Your task to perform on an android device: Open Google Maps and go to "Timeline" Image 0: 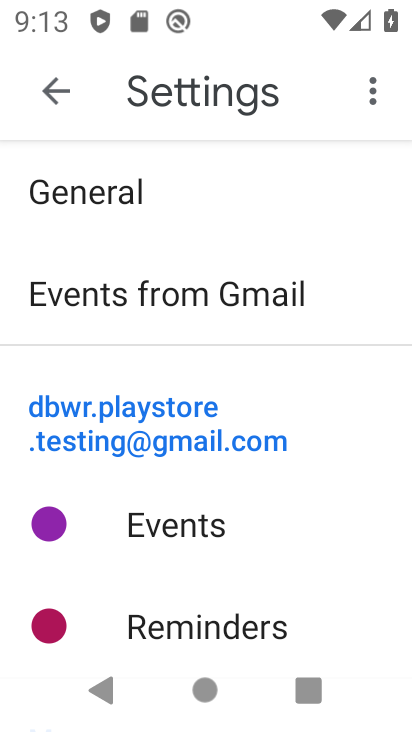
Step 0: press home button
Your task to perform on an android device: Open Google Maps and go to "Timeline" Image 1: 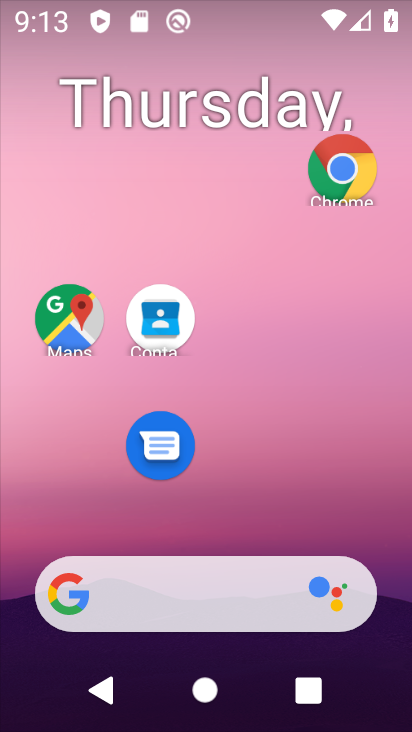
Step 1: drag from (262, 557) to (304, 186)
Your task to perform on an android device: Open Google Maps and go to "Timeline" Image 2: 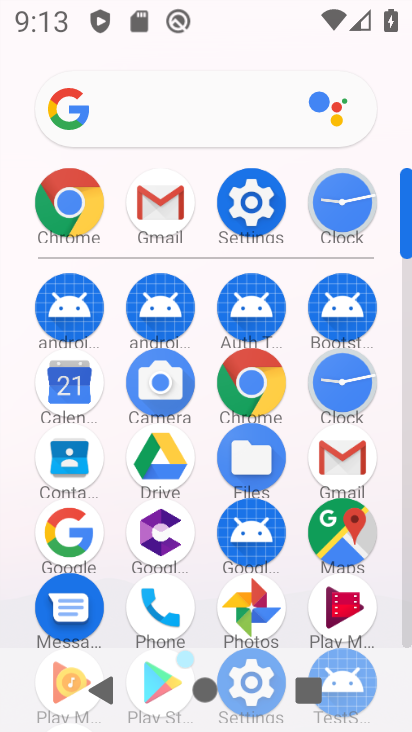
Step 2: click (334, 526)
Your task to perform on an android device: Open Google Maps and go to "Timeline" Image 3: 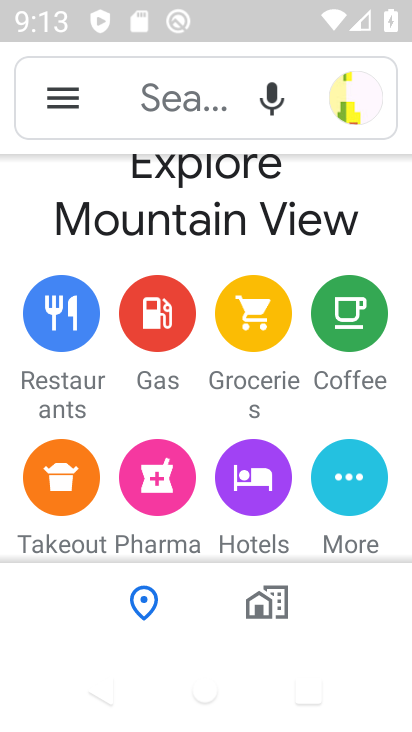
Step 3: click (54, 109)
Your task to perform on an android device: Open Google Maps and go to "Timeline" Image 4: 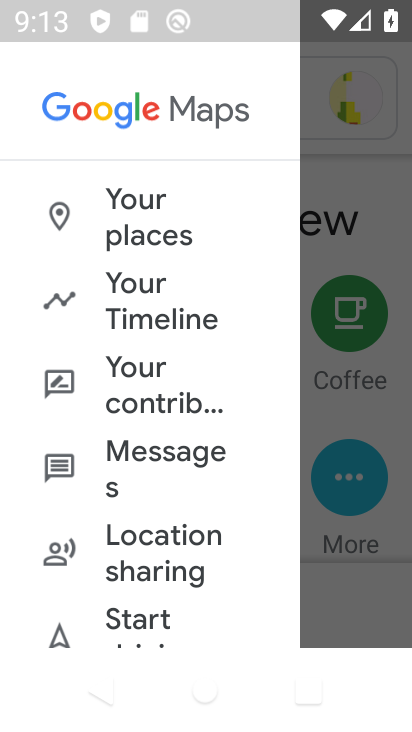
Step 4: click (118, 312)
Your task to perform on an android device: Open Google Maps and go to "Timeline" Image 5: 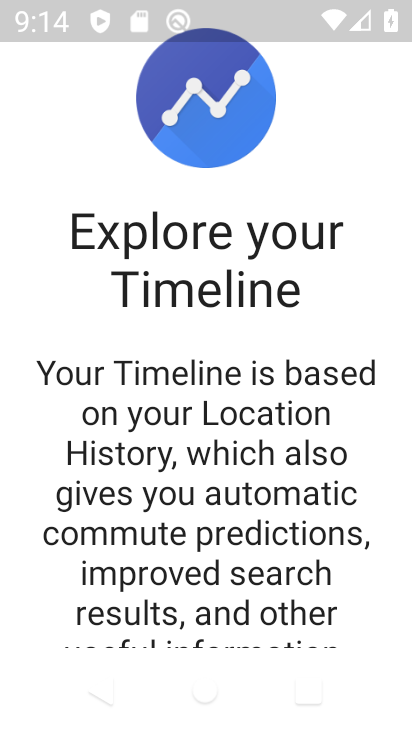
Step 5: drag from (153, 509) to (218, 224)
Your task to perform on an android device: Open Google Maps and go to "Timeline" Image 6: 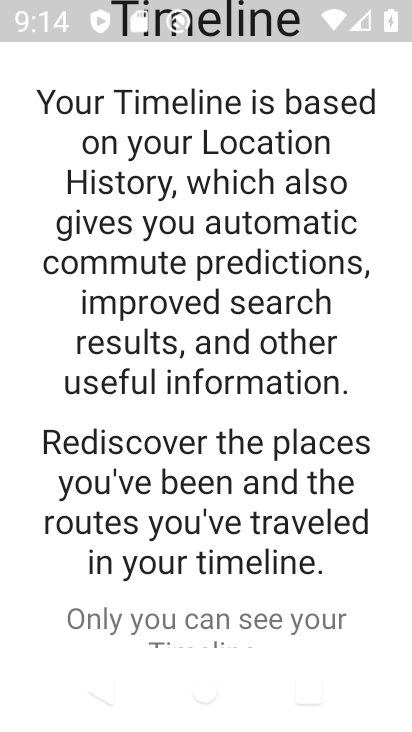
Step 6: drag from (184, 508) to (225, 240)
Your task to perform on an android device: Open Google Maps and go to "Timeline" Image 7: 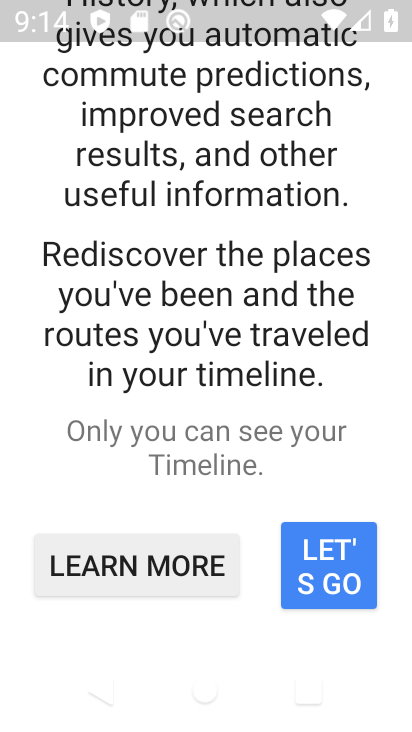
Step 7: click (332, 567)
Your task to perform on an android device: Open Google Maps and go to "Timeline" Image 8: 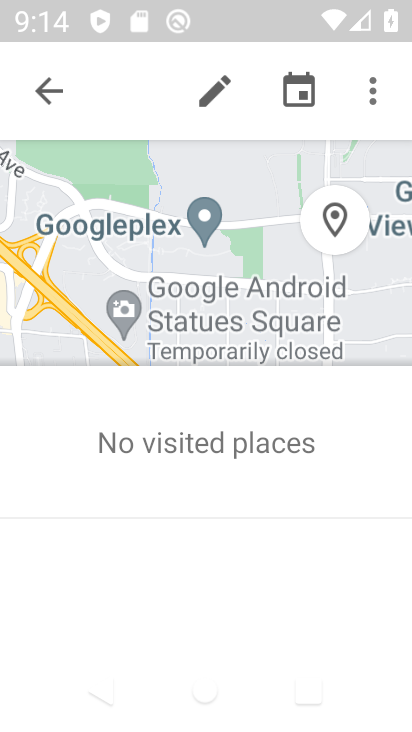
Step 8: task complete